Your task to perform on an android device: Search for Mexican restaurants on Maps Image 0: 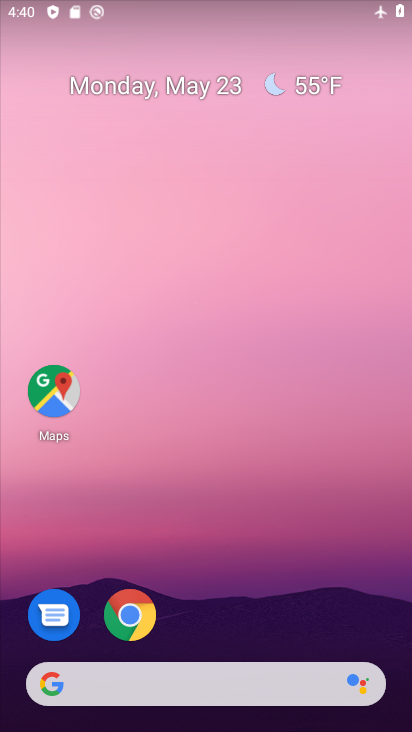
Step 0: drag from (384, 641) to (376, 170)
Your task to perform on an android device: Search for Mexican restaurants on Maps Image 1: 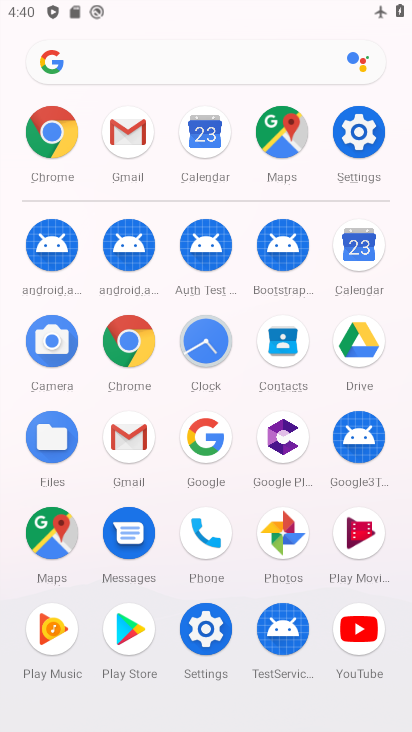
Step 1: click (43, 542)
Your task to perform on an android device: Search for Mexican restaurants on Maps Image 2: 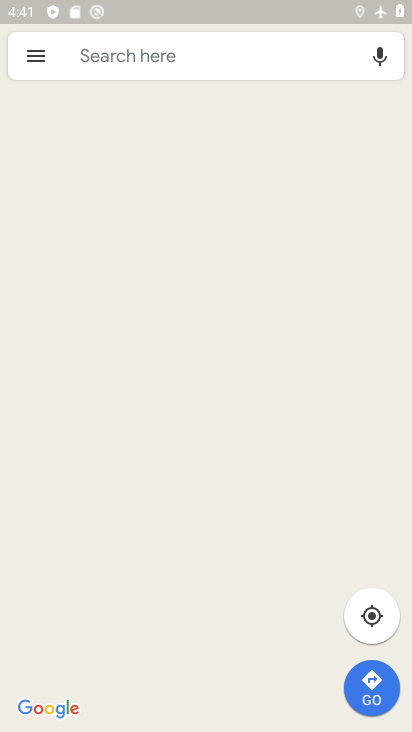
Step 2: click (239, 63)
Your task to perform on an android device: Search for Mexican restaurants on Maps Image 3: 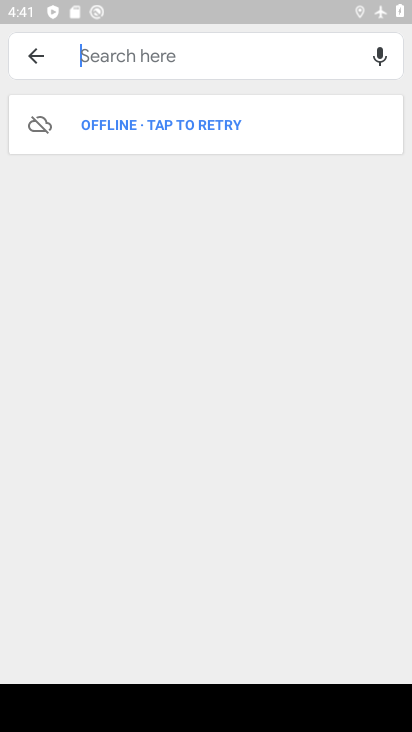
Step 3: type "mexcian restaurants"
Your task to perform on an android device: Search for Mexican restaurants on Maps Image 4: 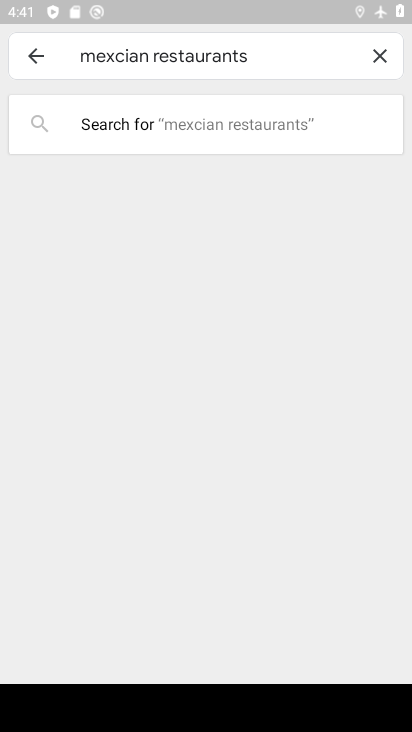
Step 4: task complete